Your task to perform on an android device: Is it going to rain this weekend? Image 0: 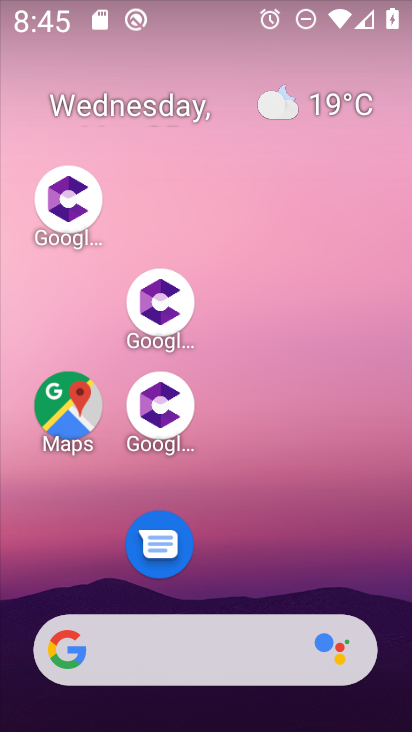
Step 0: drag from (307, 556) to (204, 3)
Your task to perform on an android device: Is it going to rain this weekend? Image 1: 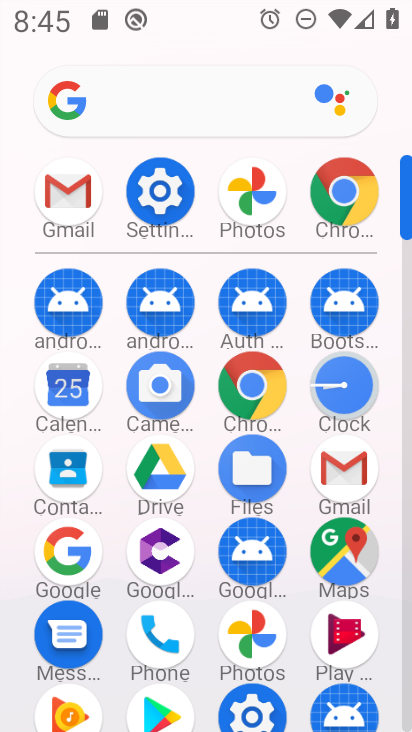
Step 1: click (131, 88)
Your task to perform on an android device: Is it going to rain this weekend? Image 2: 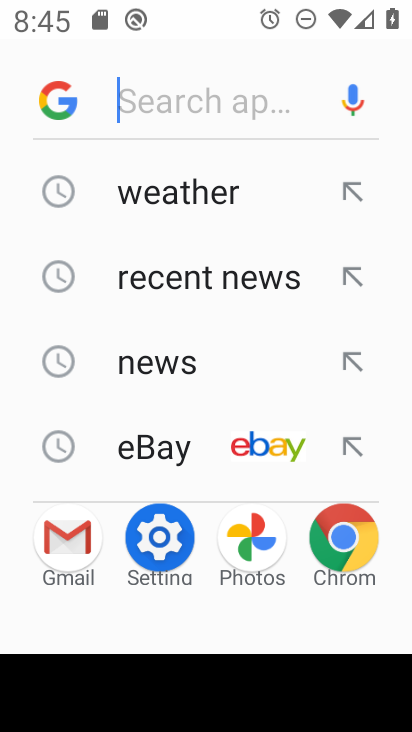
Step 2: click (161, 190)
Your task to perform on an android device: Is it going to rain this weekend? Image 3: 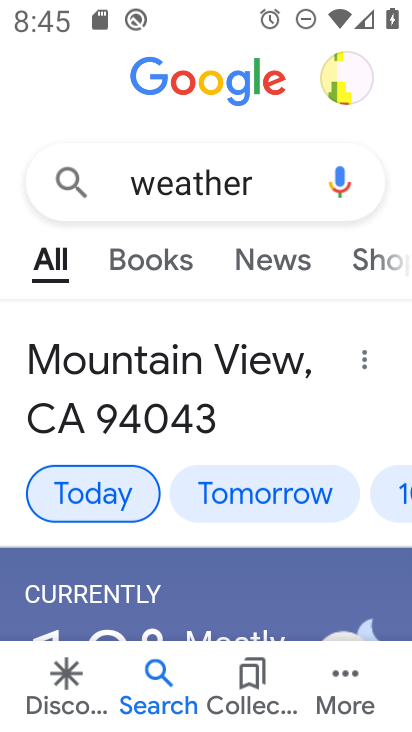
Step 3: click (404, 499)
Your task to perform on an android device: Is it going to rain this weekend? Image 4: 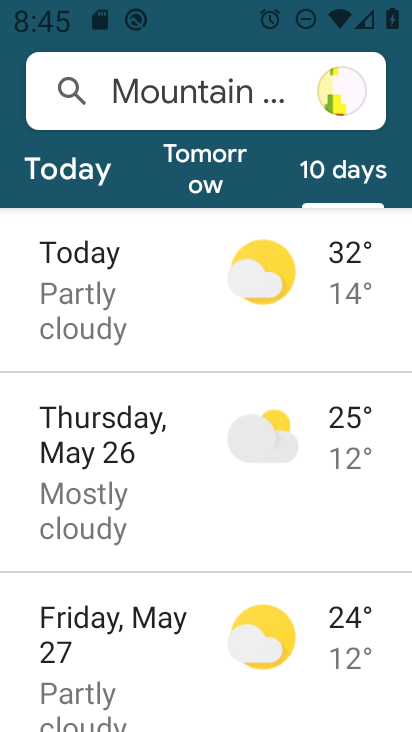
Step 4: task complete